Your task to perform on an android device: open app "Spotify: Music and Podcasts" (install if not already installed), go to login, and select forgot password Image 0: 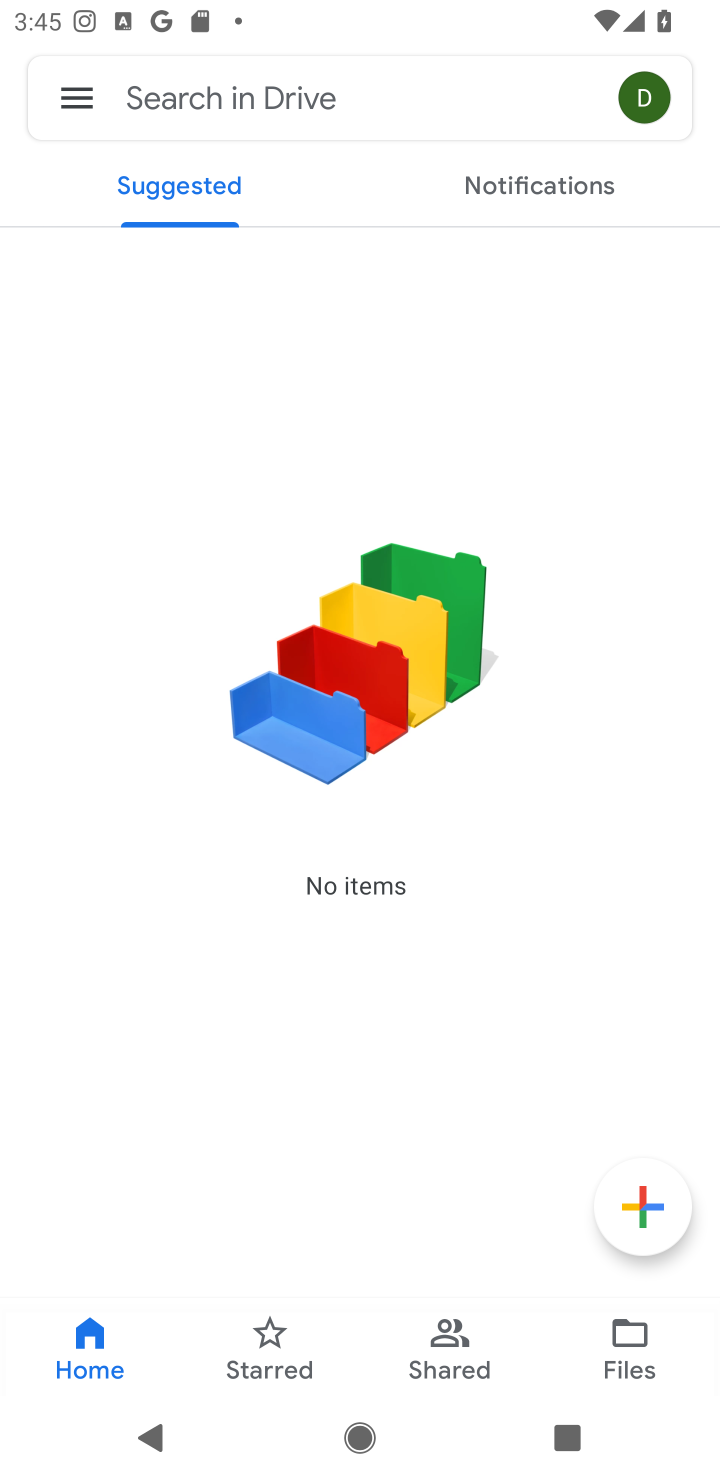
Step 0: press home button
Your task to perform on an android device: open app "Spotify: Music and Podcasts" (install if not already installed), go to login, and select forgot password Image 1: 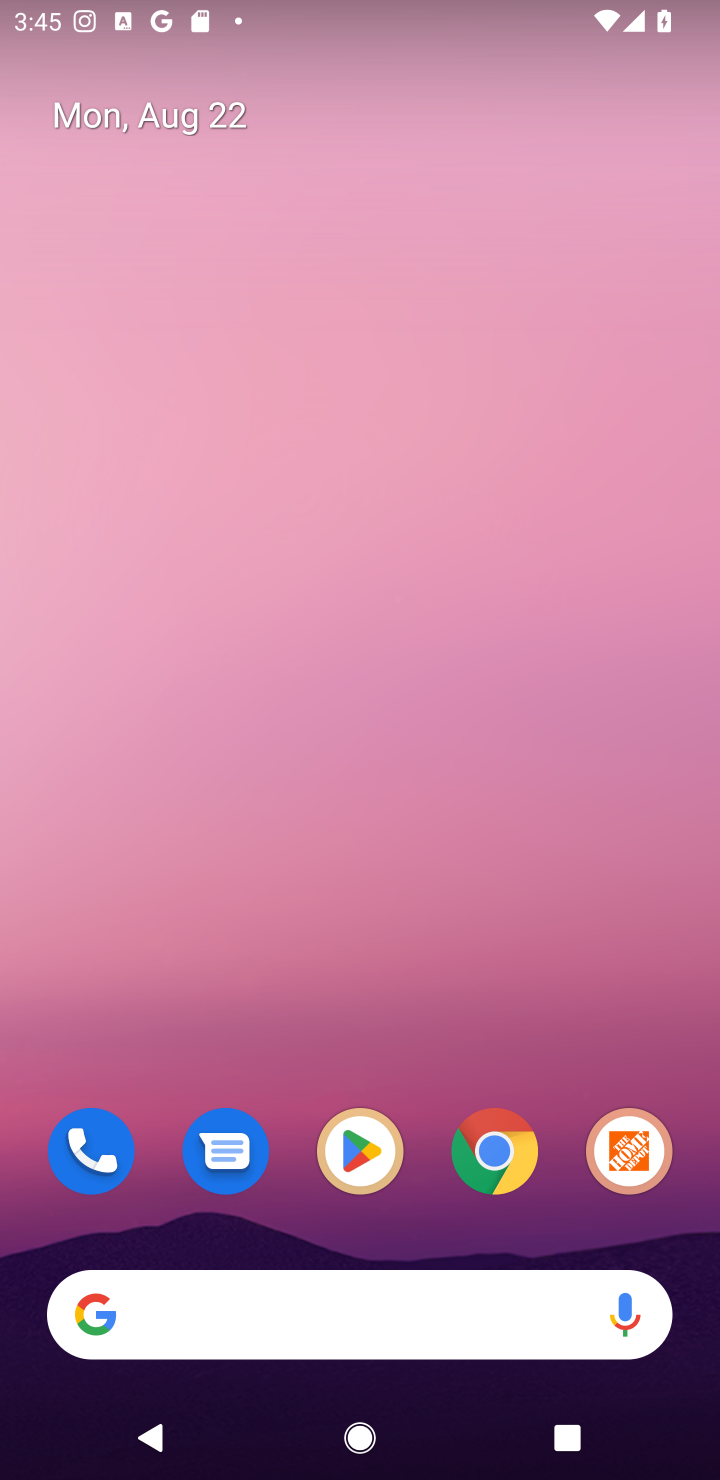
Step 1: click (353, 1159)
Your task to perform on an android device: open app "Spotify: Music and Podcasts" (install if not already installed), go to login, and select forgot password Image 2: 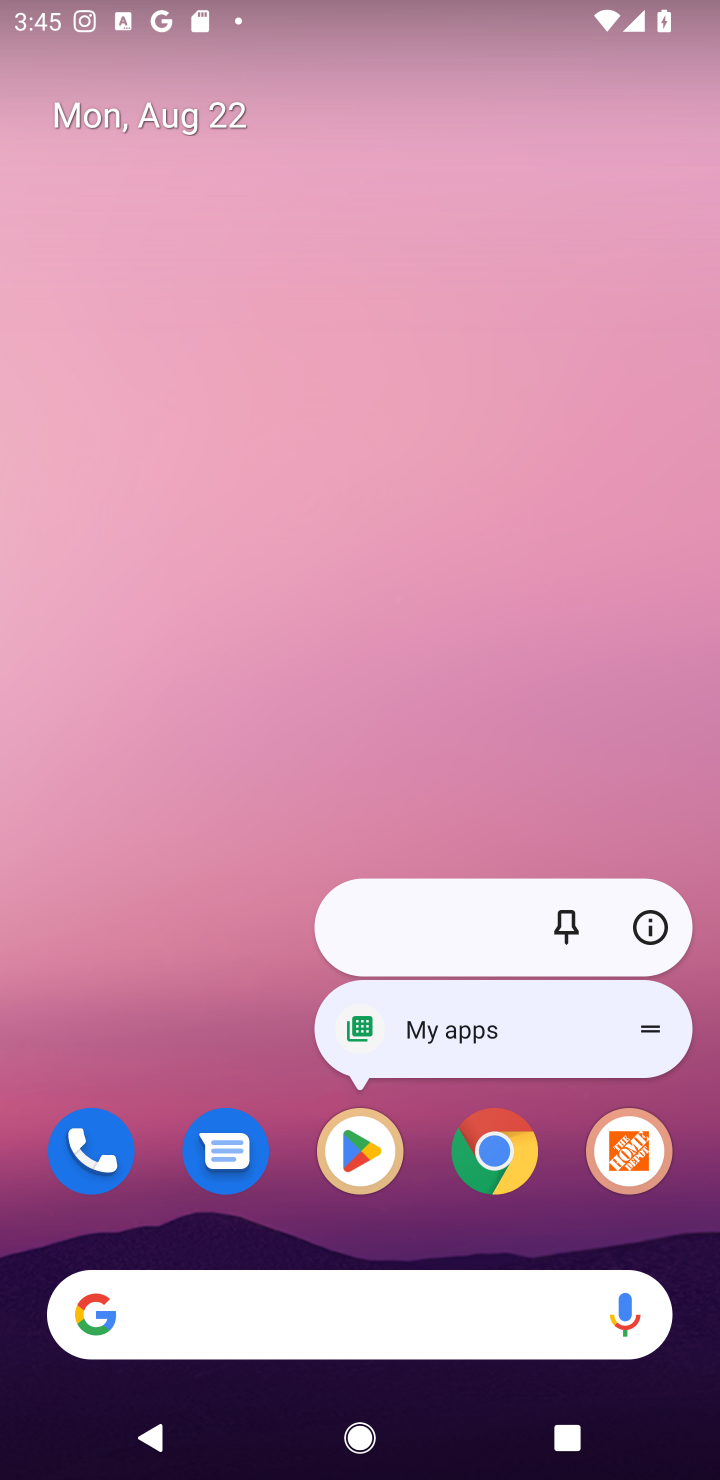
Step 2: click (353, 1163)
Your task to perform on an android device: open app "Spotify: Music and Podcasts" (install if not already installed), go to login, and select forgot password Image 3: 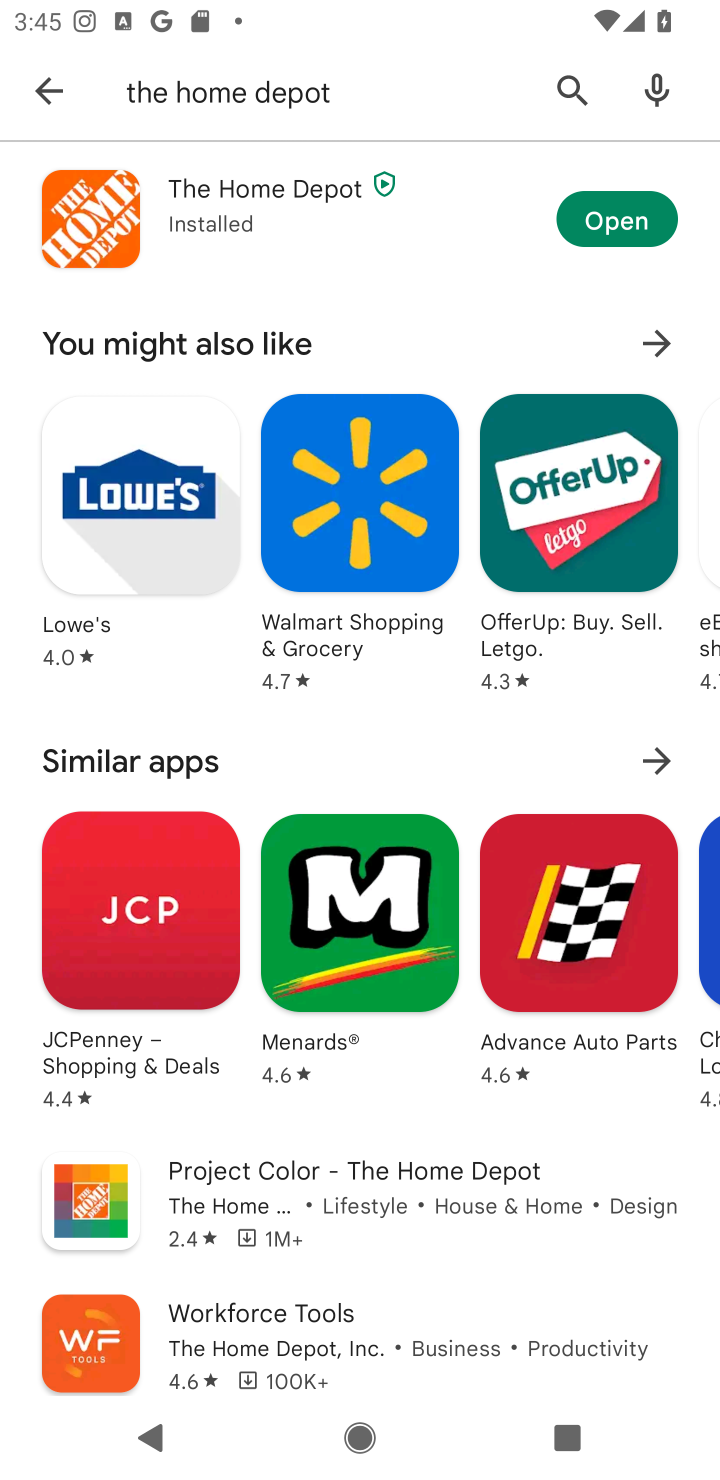
Step 3: click (570, 88)
Your task to perform on an android device: open app "Spotify: Music and Podcasts" (install if not already installed), go to login, and select forgot password Image 4: 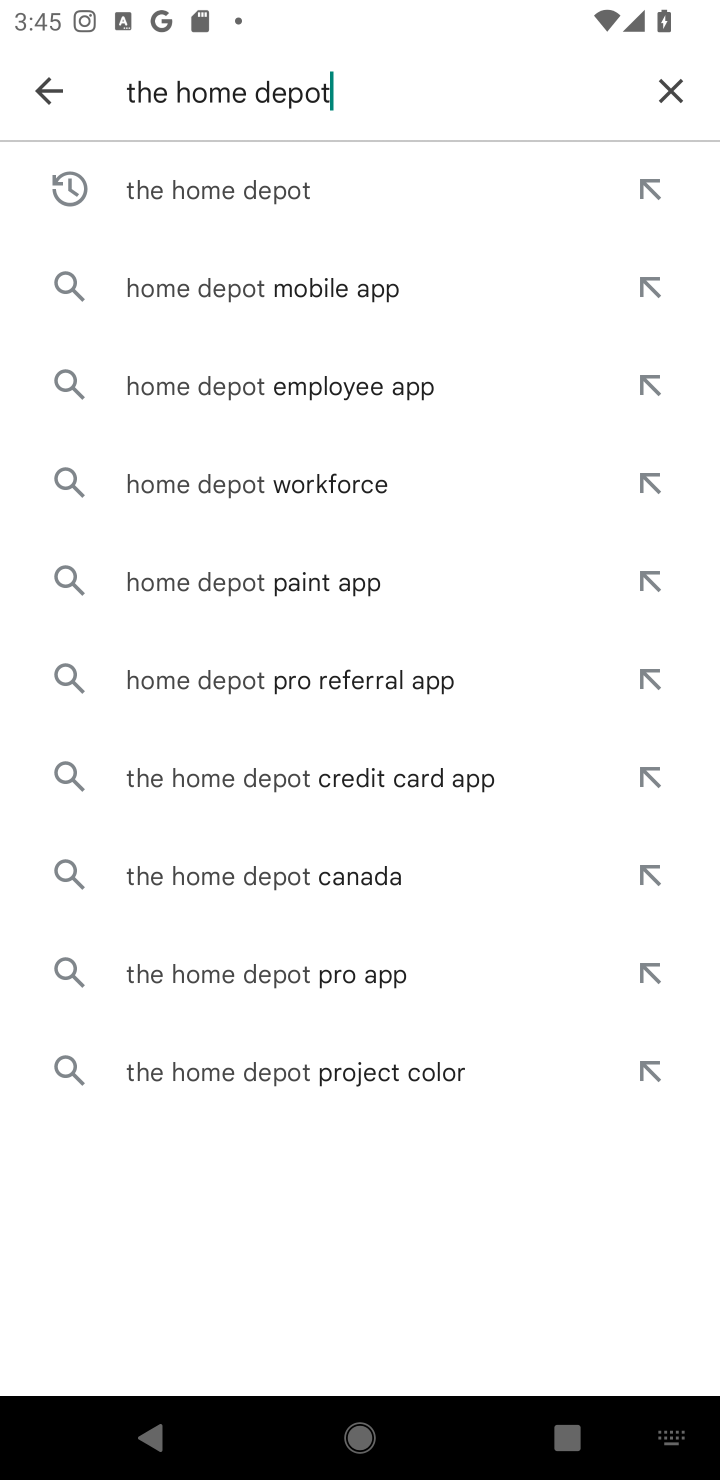
Step 4: click (666, 88)
Your task to perform on an android device: open app "Spotify: Music and Podcasts" (install if not already installed), go to login, and select forgot password Image 5: 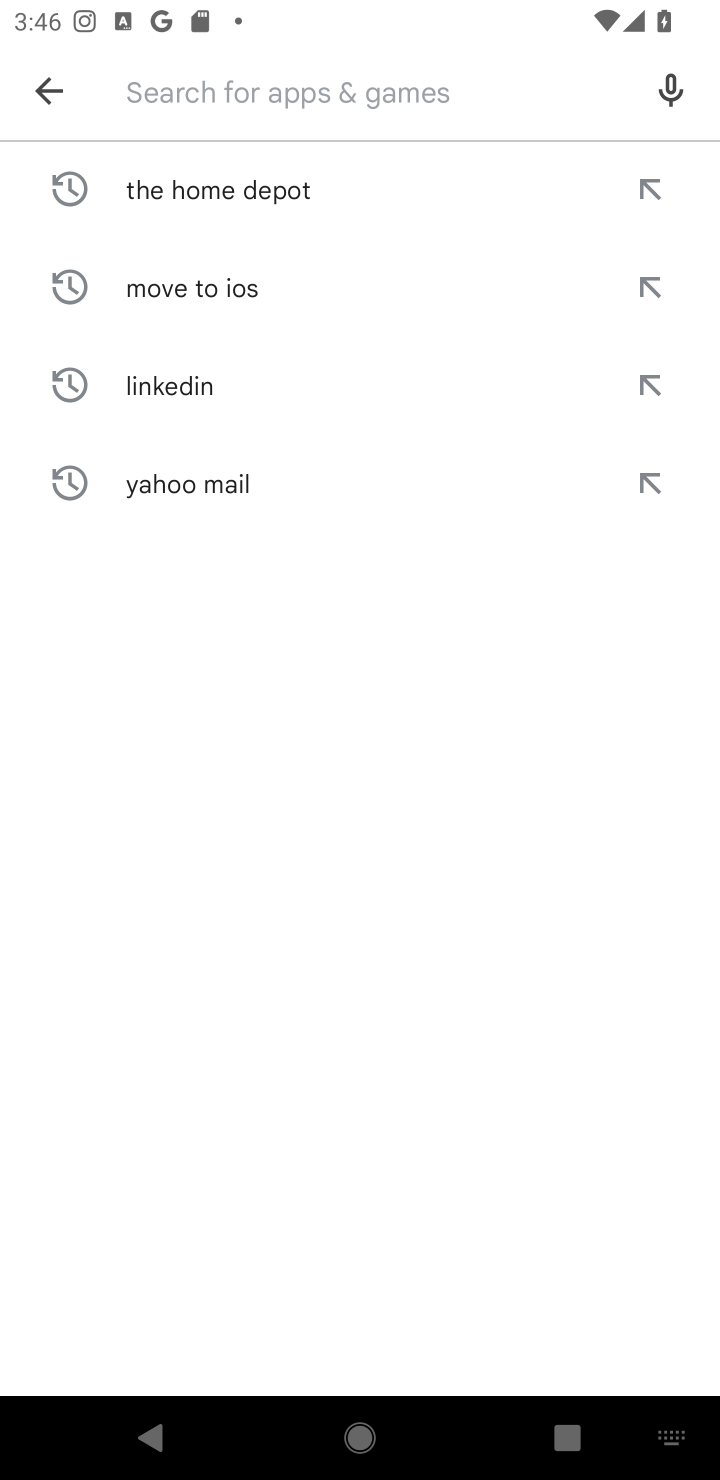
Step 5: type "Spotify: Music and Podcasts"
Your task to perform on an android device: open app "Spotify: Music and Podcasts" (install if not already installed), go to login, and select forgot password Image 6: 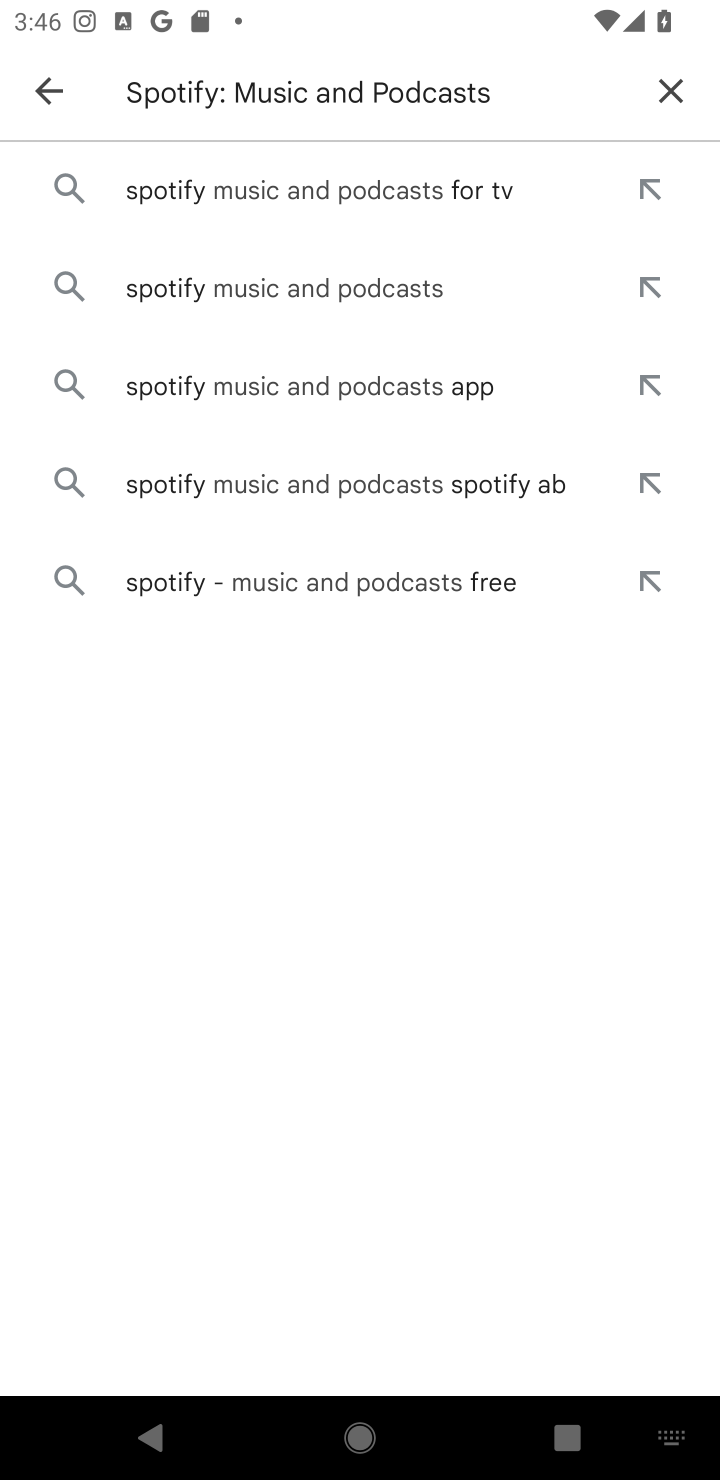
Step 6: click (301, 190)
Your task to perform on an android device: open app "Spotify: Music and Podcasts" (install if not already installed), go to login, and select forgot password Image 7: 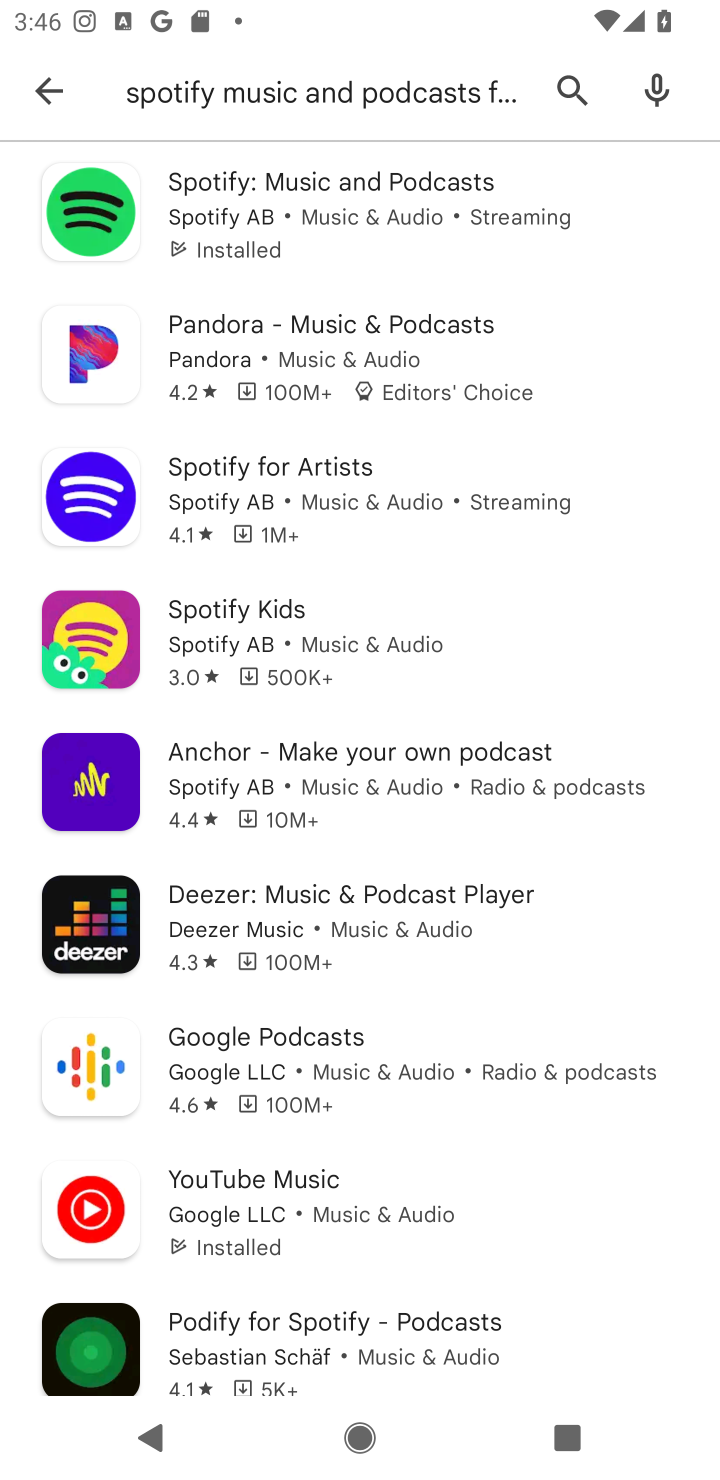
Step 7: click (314, 216)
Your task to perform on an android device: open app "Spotify: Music and Podcasts" (install if not already installed), go to login, and select forgot password Image 8: 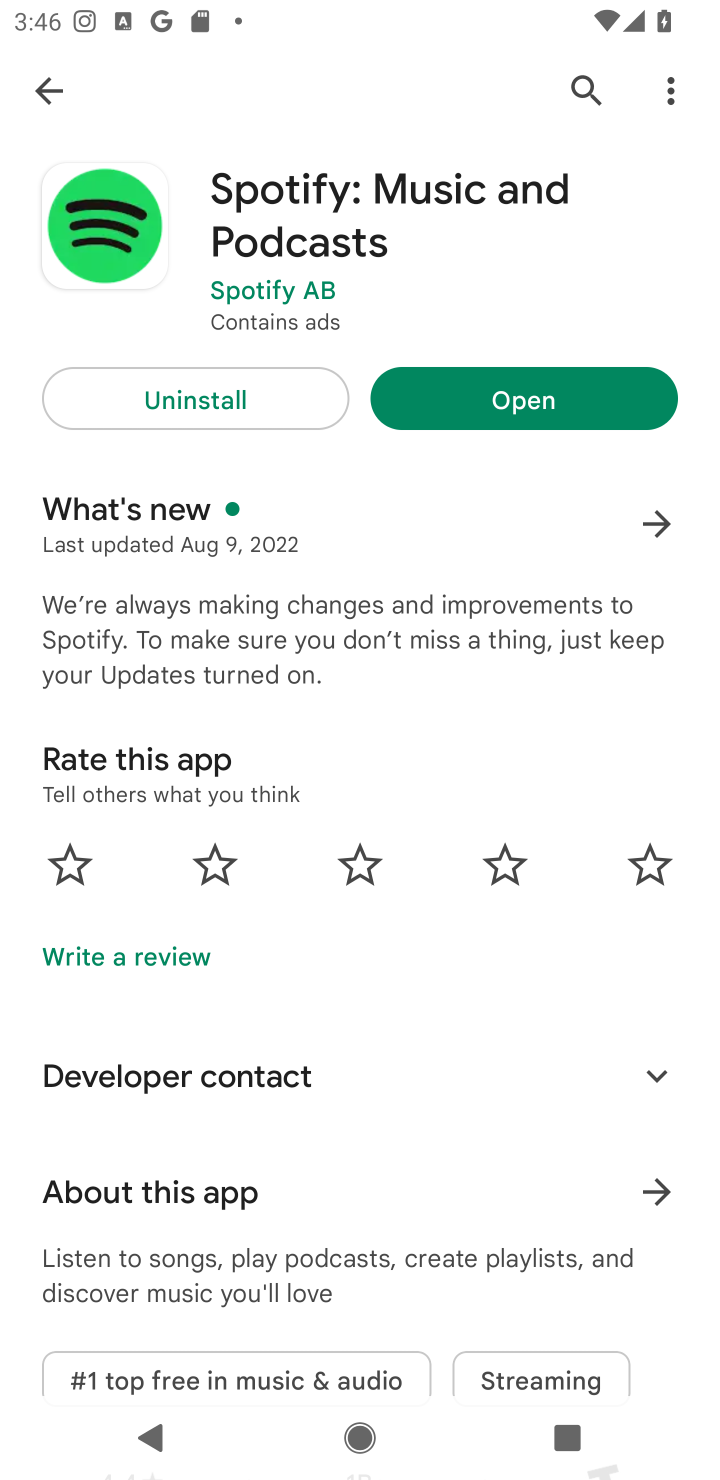
Step 8: click (500, 420)
Your task to perform on an android device: open app "Spotify: Music and Podcasts" (install if not already installed), go to login, and select forgot password Image 9: 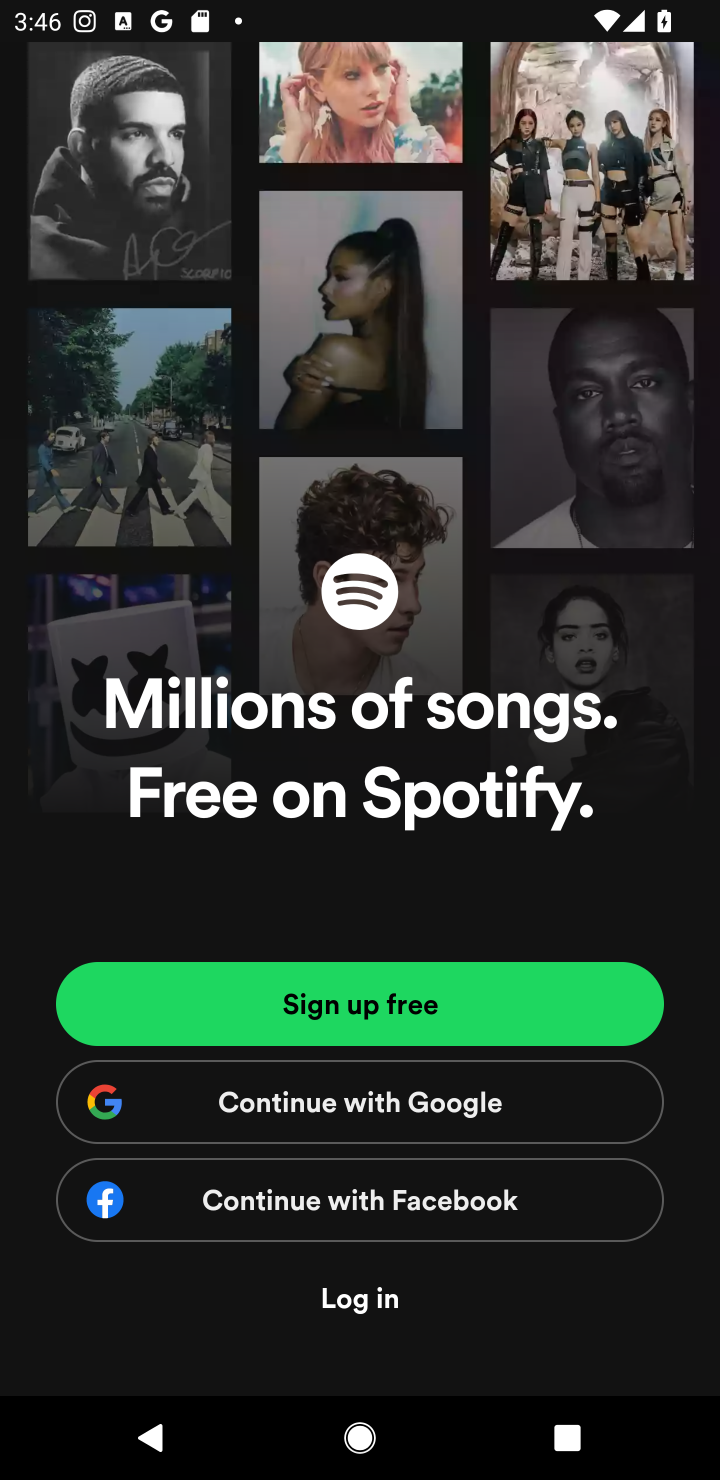
Step 9: click (387, 1303)
Your task to perform on an android device: open app "Spotify: Music and Podcasts" (install if not already installed), go to login, and select forgot password Image 10: 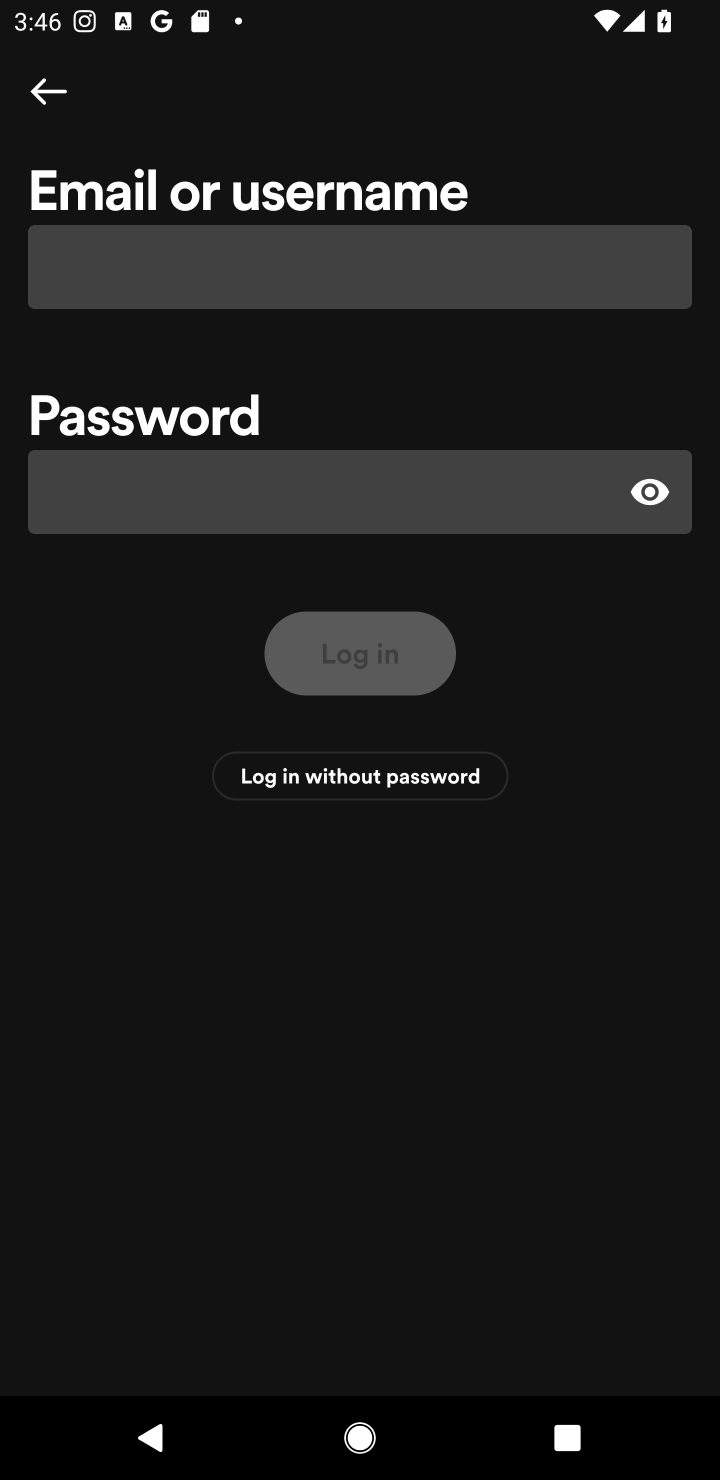
Step 10: task complete